Your task to perform on an android device: toggle airplane mode Image 0: 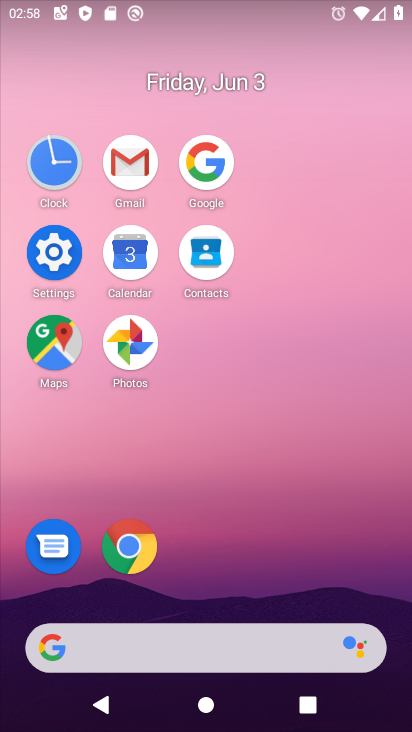
Step 0: click (59, 240)
Your task to perform on an android device: toggle airplane mode Image 1: 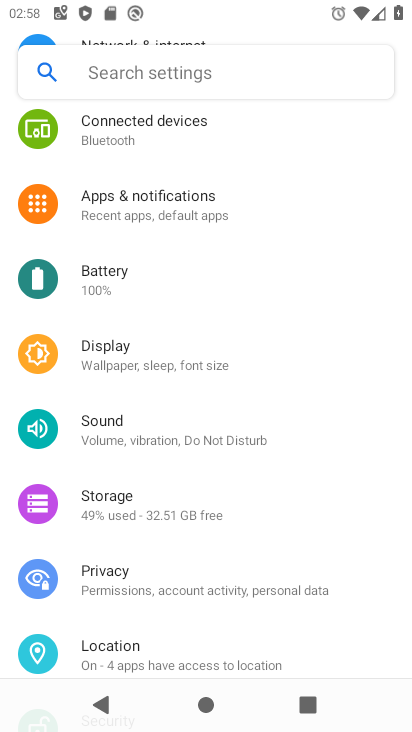
Step 1: drag from (183, 153) to (131, 503)
Your task to perform on an android device: toggle airplane mode Image 2: 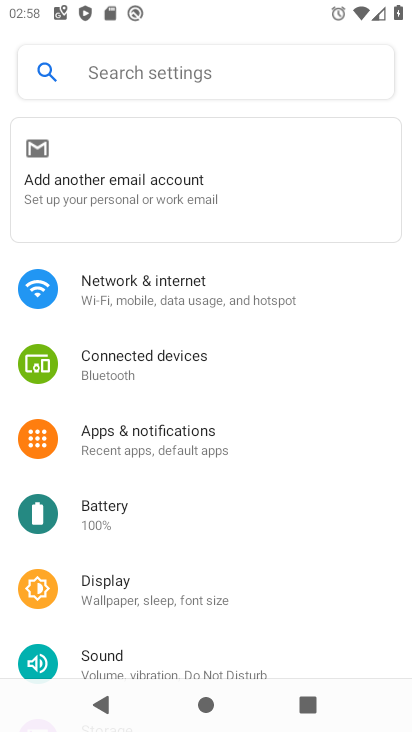
Step 2: click (188, 296)
Your task to perform on an android device: toggle airplane mode Image 3: 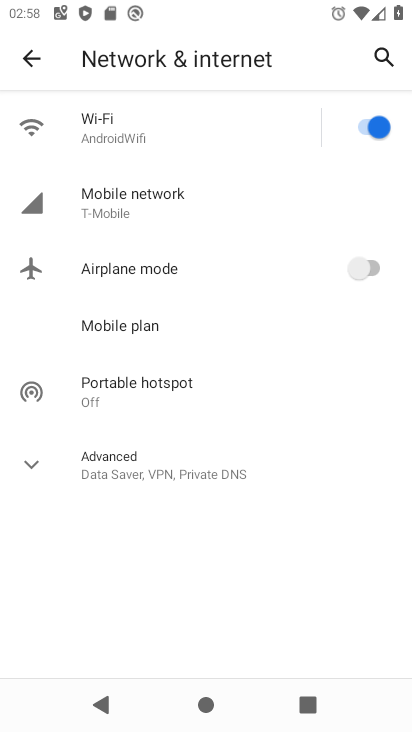
Step 3: click (267, 254)
Your task to perform on an android device: toggle airplane mode Image 4: 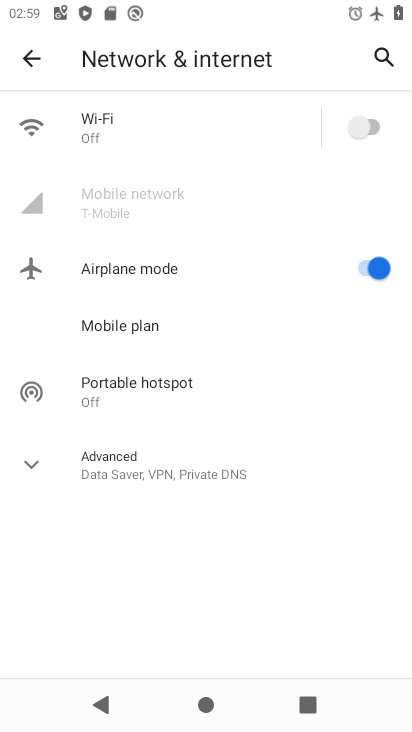
Step 4: task complete